Your task to perform on an android device: Open Chrome and go to settings Image 0: 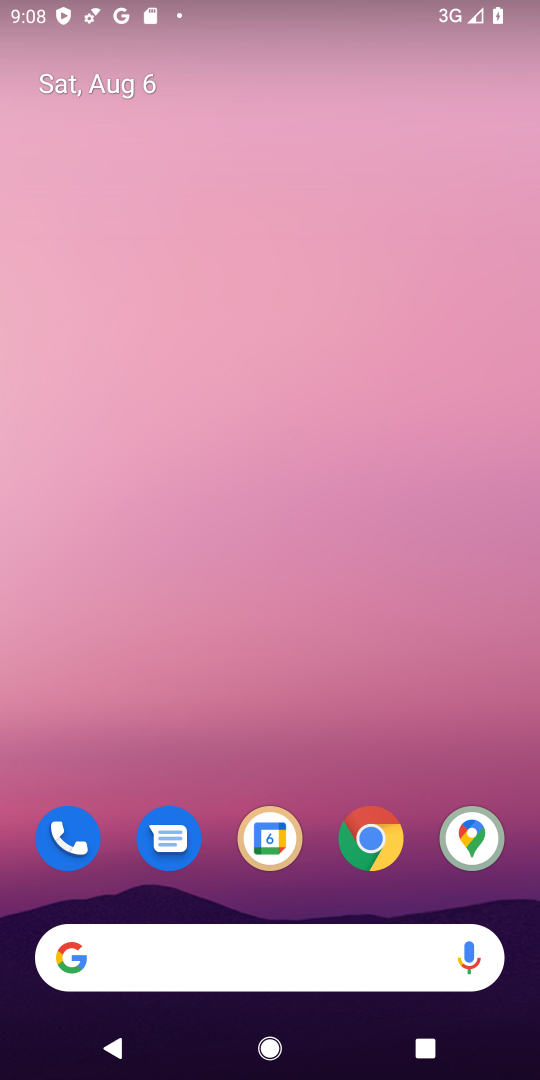
Step 0: click (388, 844)
Your task to perform on an android device: Open Chrome and go to settings Image 1: 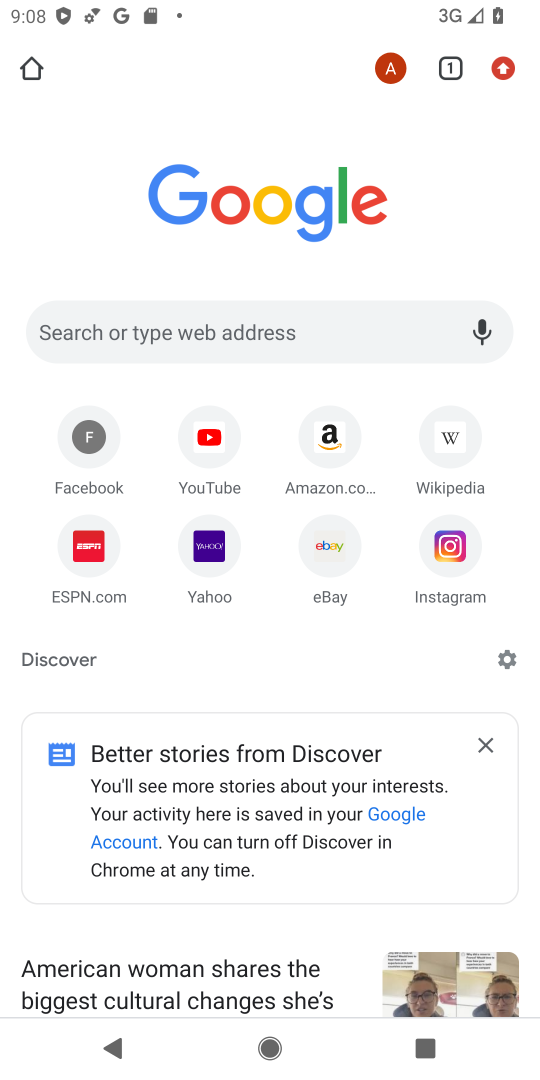
Step 1: click (509, 67)
Your task to perform on an android device: Open Chrome and go to settings Image 2: 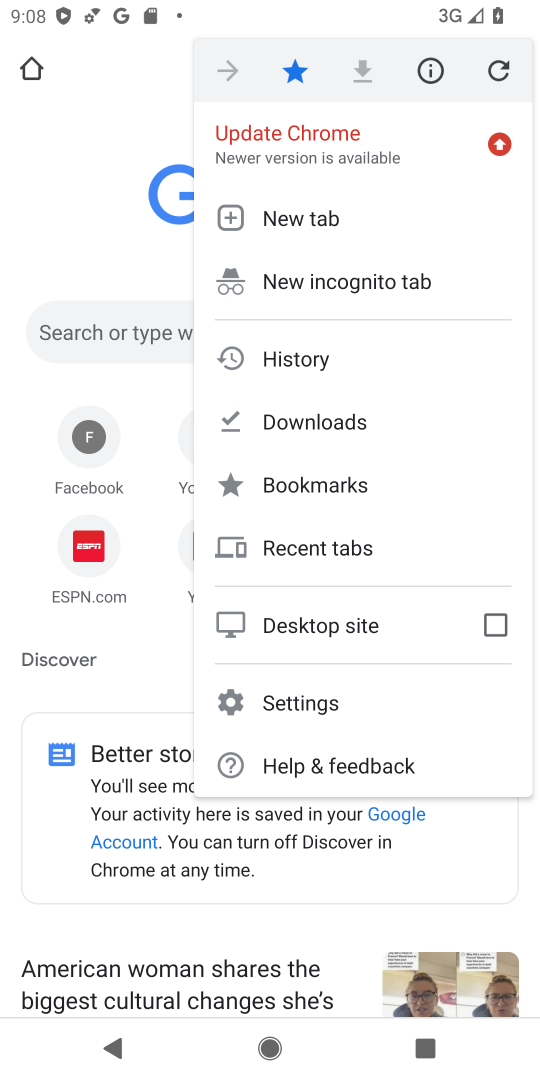
Step 2: click (380, 696)
Your task to perform on an android device: Open Chrome and go to settings Image 3: 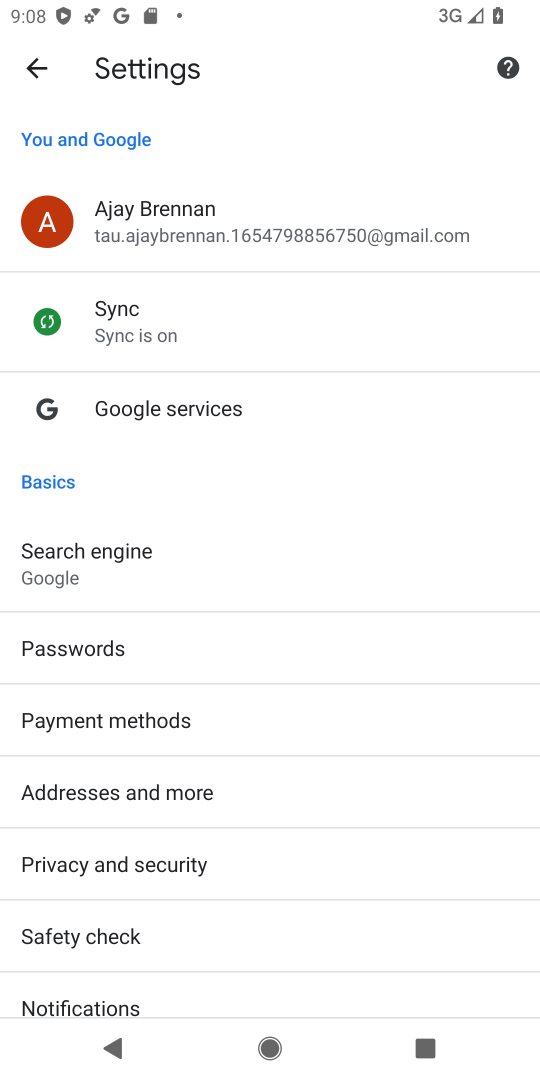
Step 3: task complete